Your task to perform on an android device: Open Chrome and go to settings Image 0: 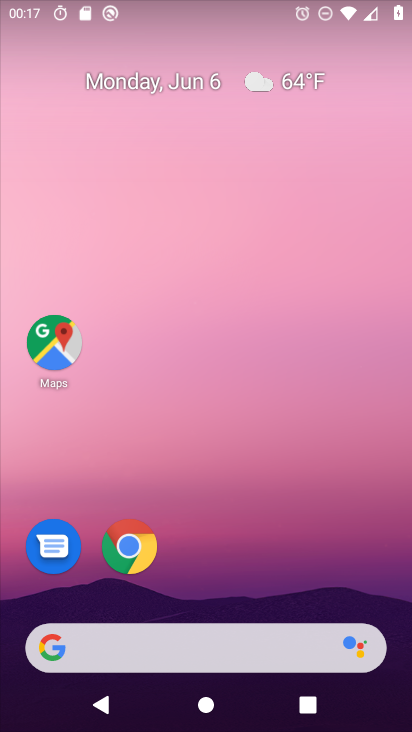
Step 0: click (236, 100)
Your task to perform on an android device: Open Chrome and go to settings Image 1: 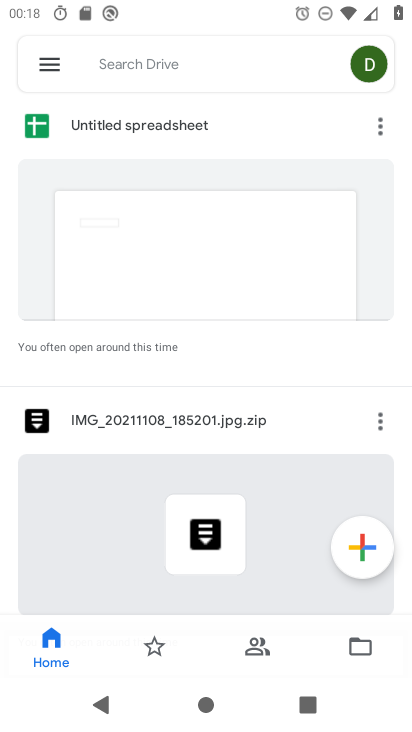
Step 1: press home button
Your task to perform on an android device: Open Chrome and go to settings Image 2: 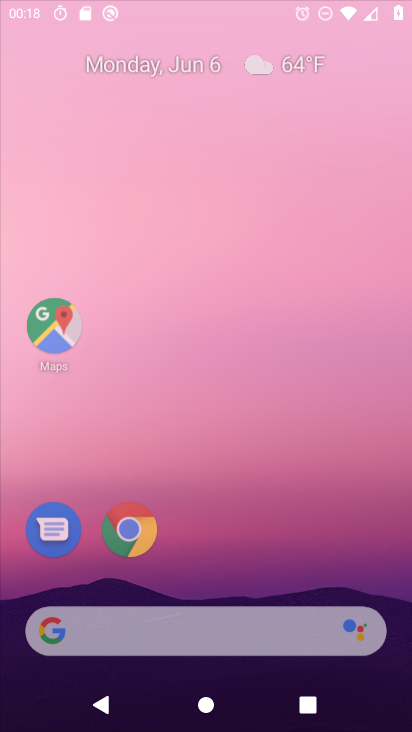
Step 2: drag from (244, 533) to (307, 61)
Your task to perform on an android device: Open Chrome and go to settings Image 3: 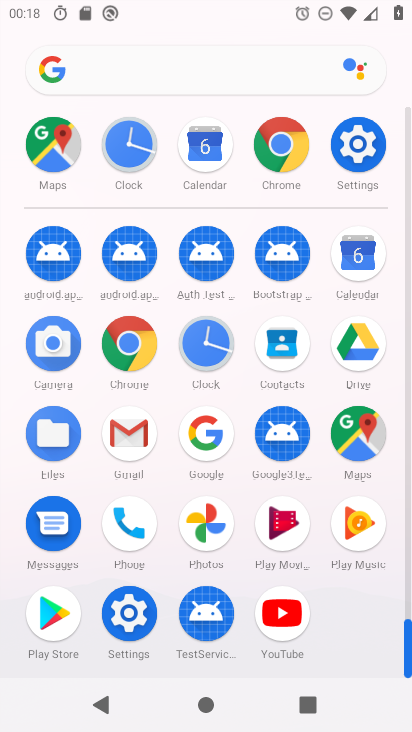
Step 3: click (280, 135)
Your task to perform on an android device: Open Chrome and go to settings Image 4: 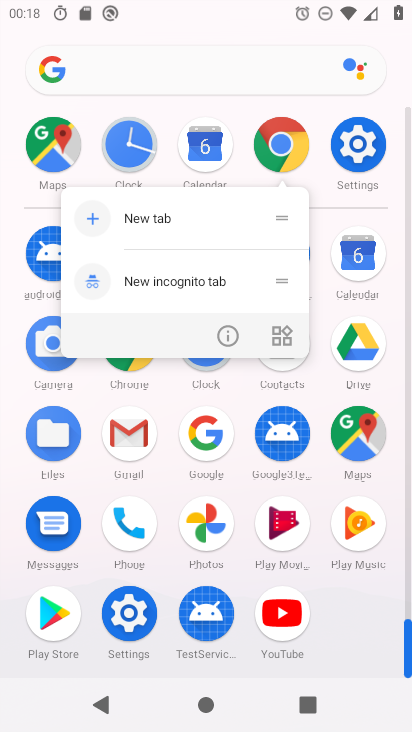
Step 4: click (228, 325)
Your task to perform on an android device: Open Chrome and go to settings Image 5: 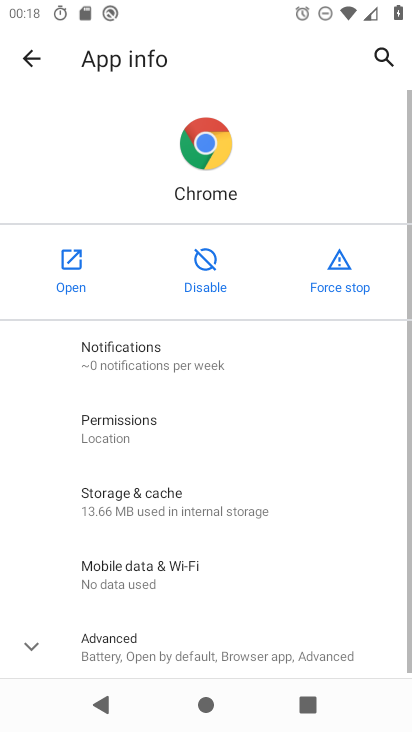
Step 5: click (78, 274)
Your task to perform on an android device: Open Chrome and go to settings Image 6: 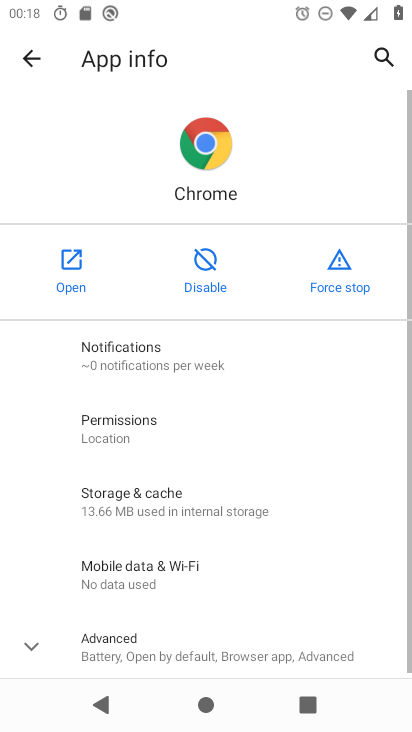
Step 6: click (78, 274)
Your task to perform on an android device: Open Chrome and go to settings Image 7: 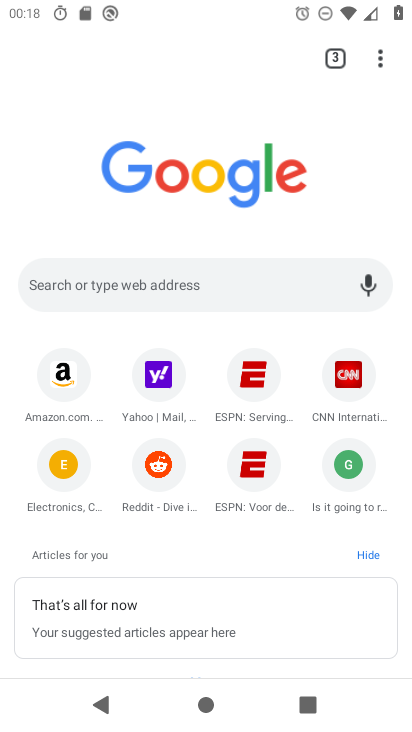
Step 7: click (374, 55)
Your task to perform on an android device: Open Chrome and go to settings Image 8: 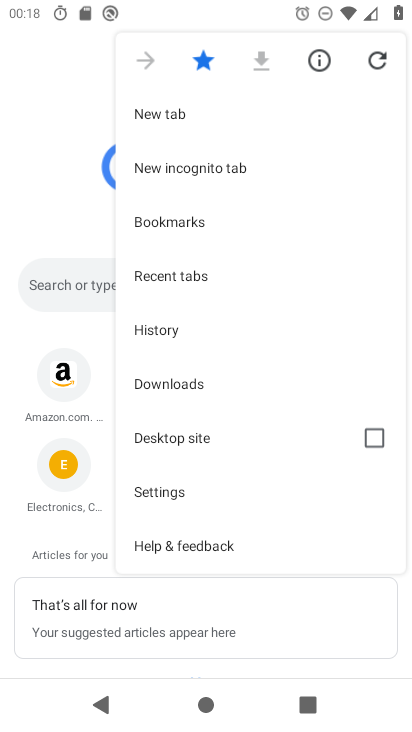
Step 8: click (204, 496)
Your task to perform on an android device: Open Chrome and go to settings Image 9: 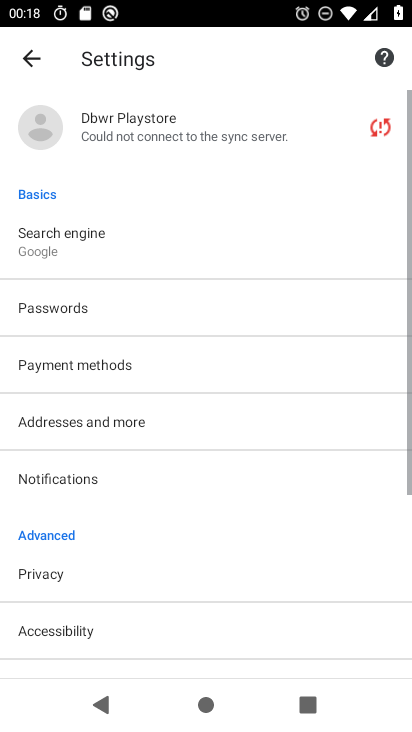
Step 9: task complete